Your task to perform on an android device: Open Google Maps Image 0: 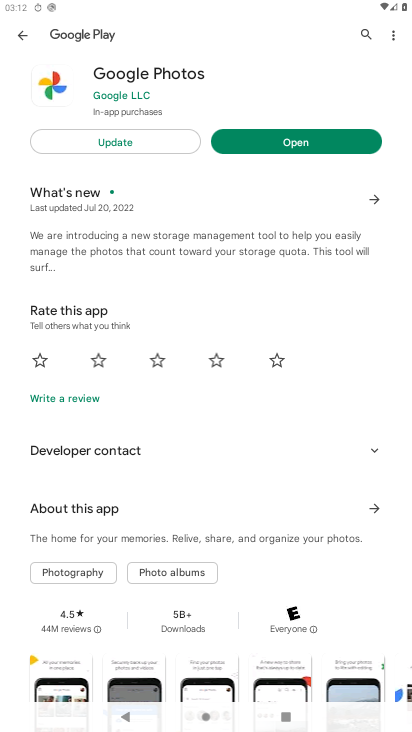
Step 0: press home button
Your task to perform on an android device: Open Google Maps Image 1: 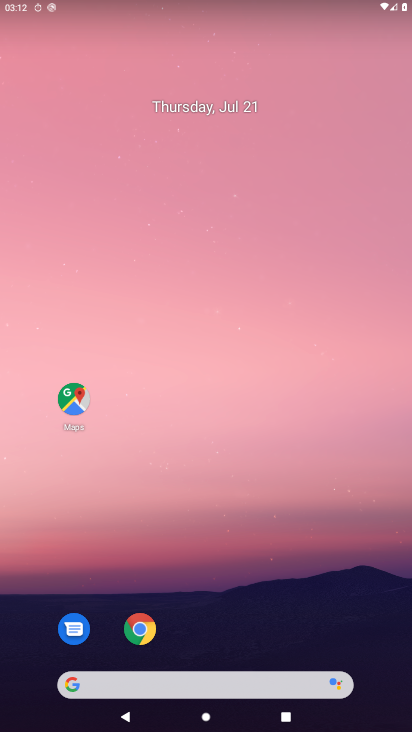
Step 1: click (66, 396)
Your task to perform on an android device: Open Google Maps Image 2: 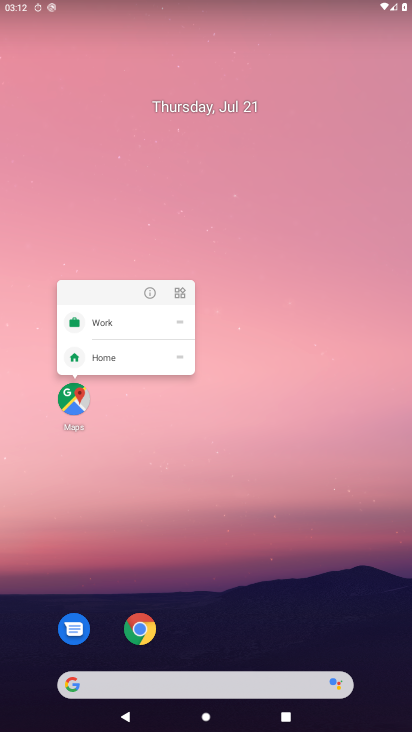
Step 2: click (61, 415)
Your task to perform on an android device: Open Google Maps Image 3: 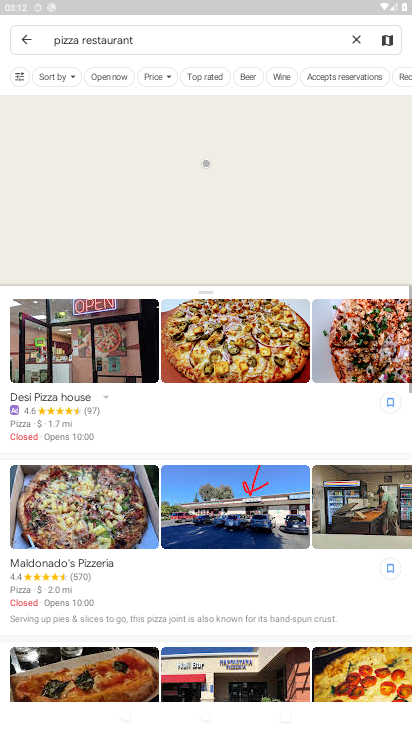
Step 3: click (24, 38)
Your task to perform on an android device: Open Google Maps Image 4: 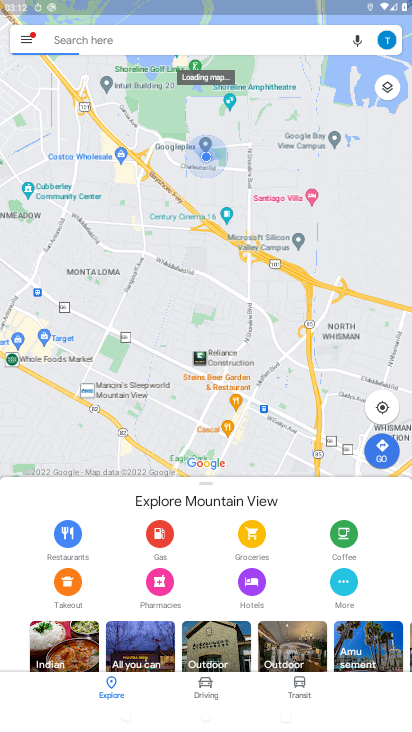
Step 4: task complete